Your task to perform on an android device: Open accessibility settings Image 0: 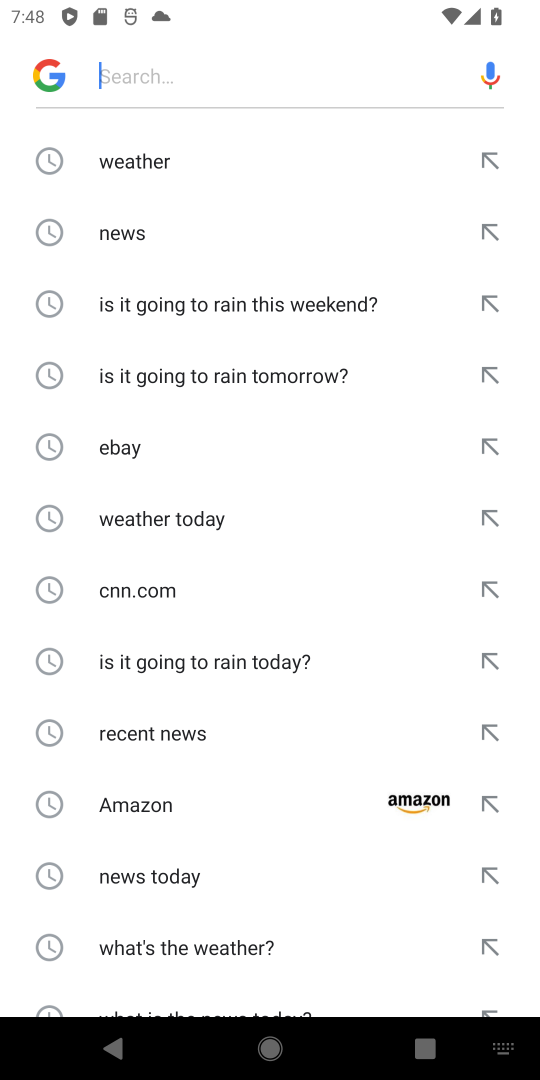
Step 0: press home button
Your task to perform on an android device: Open accessibility settings Image 1: 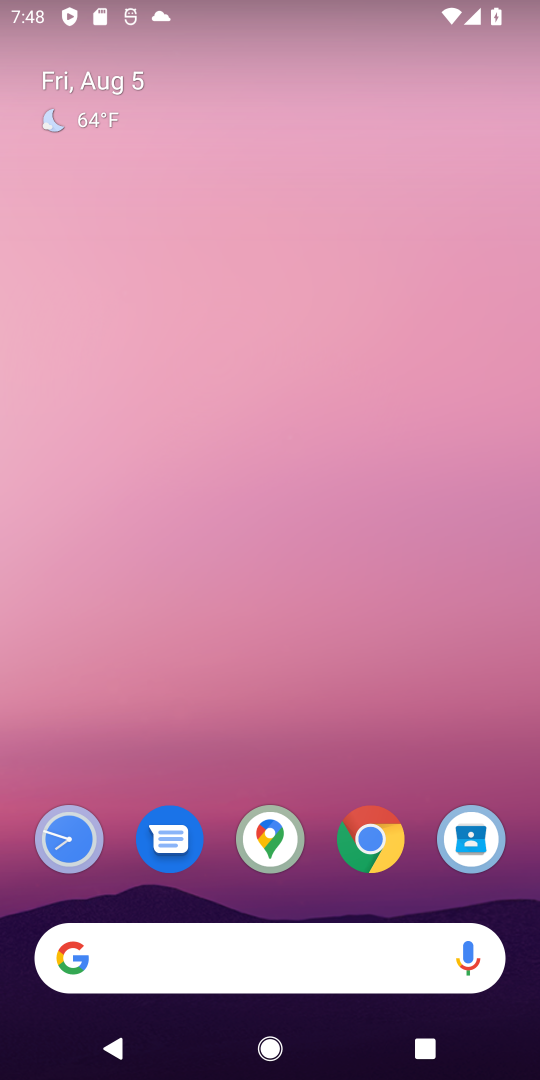
Step 1: drag from (291, 637) to (265, 94)
Your task to perform on an android device: Open accessibility settings Image 2: 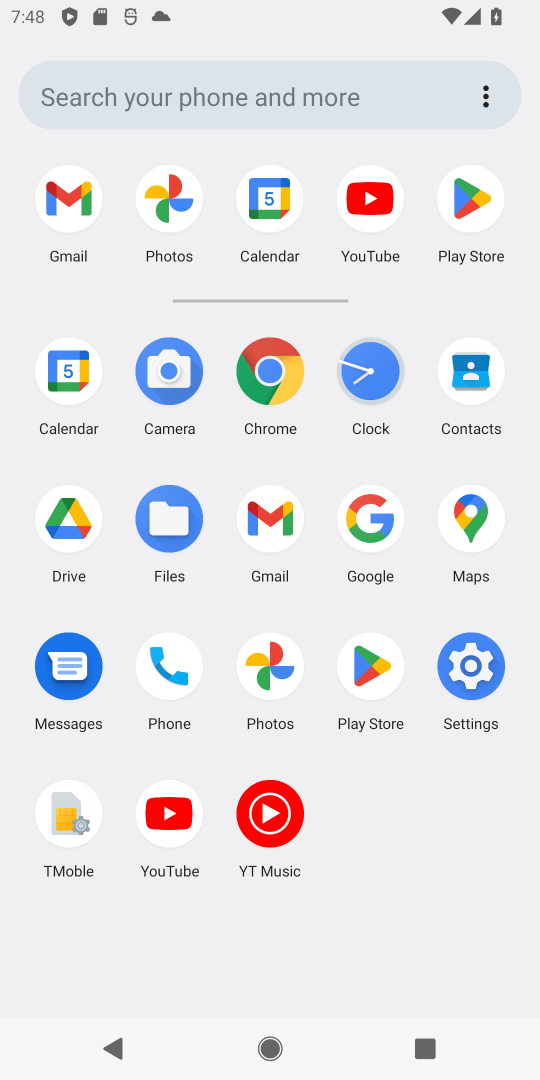
Step 2: click (477, 669)
Your task to perform on an android device: Open accessibility settings Image 3: 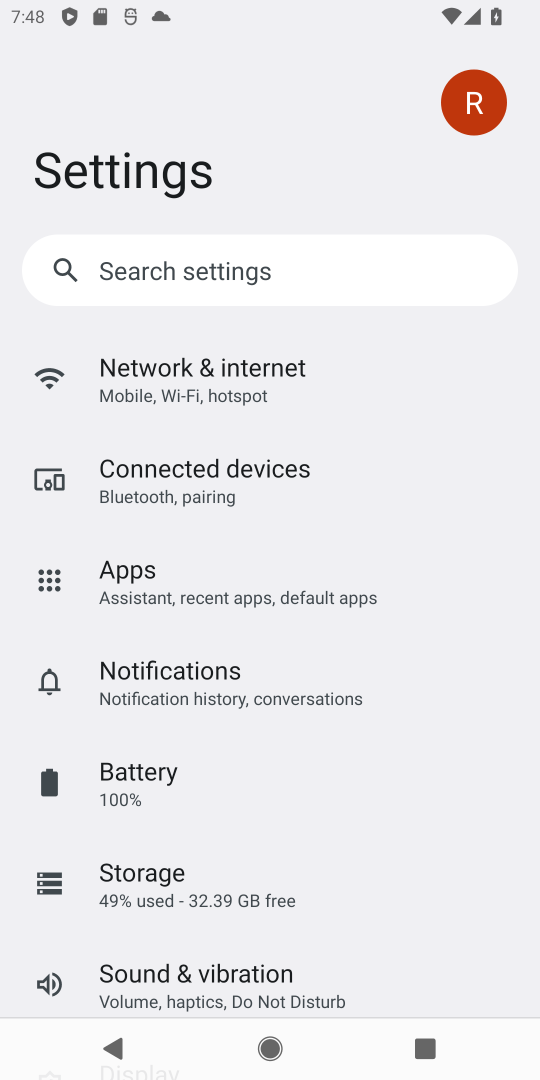
Step 3: drag from (201, 975) to (177, 443)
Your task to perform on an android device: Open accessibility settings Image 4: 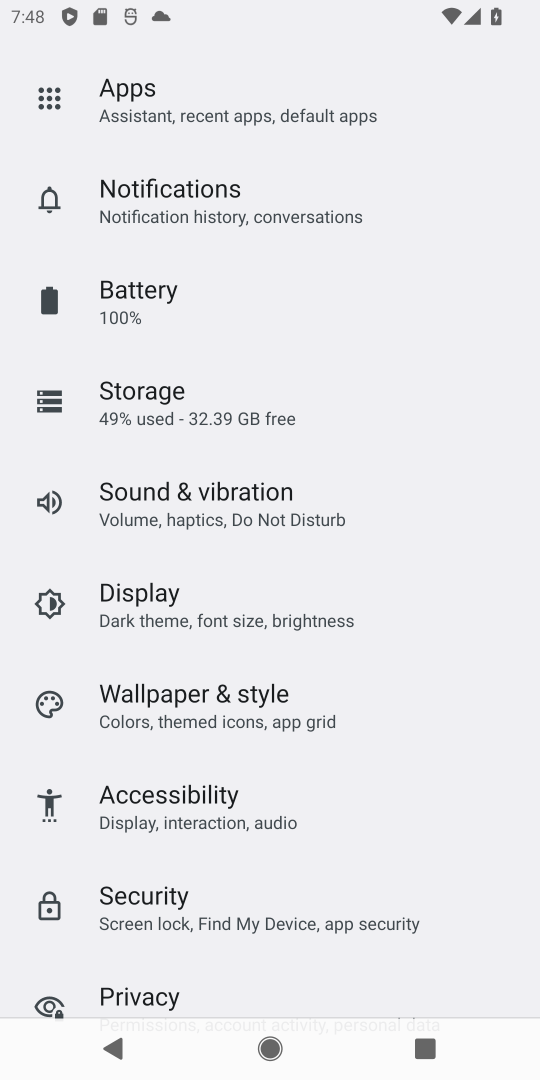
Step 4: click (158, 807)
Your task to perform on an android device: Open accessibility settings Image 5: 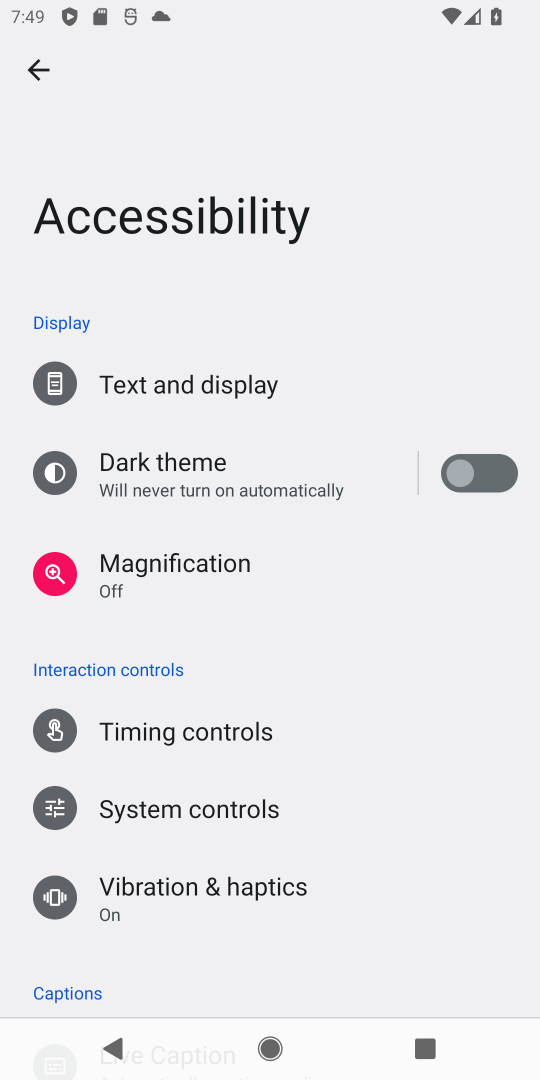
Step 5: task complete